Your task to perform on an android device: Play the last video I watched on Youtube Image 0: 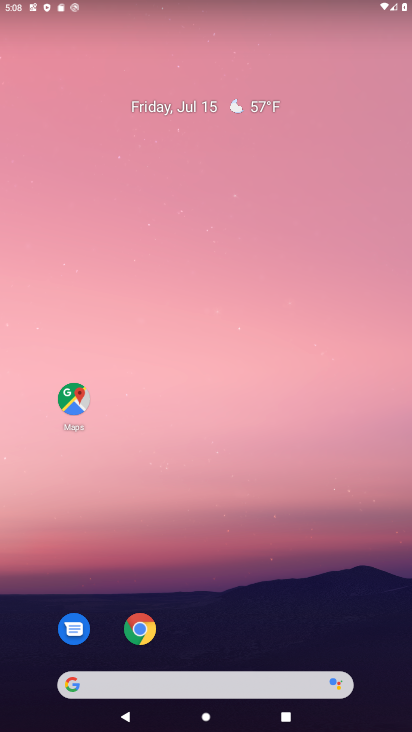
Step 0: press home button
Your task to perform on an android device: Play the last video I watched on Youtube Image 1: 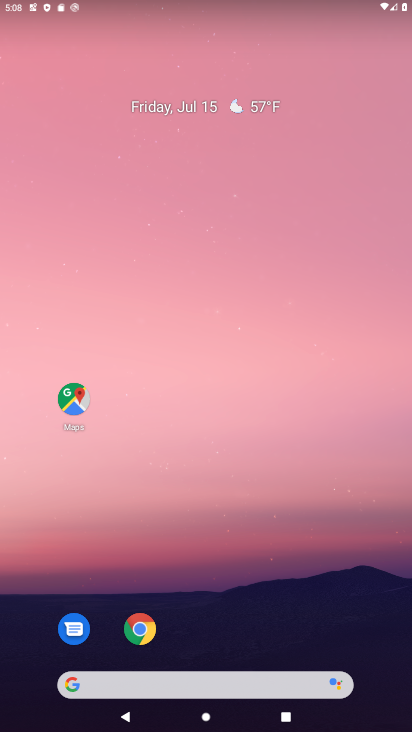
Step 1: drag from (249, 617) to (310, 182)
Your task to perform on an android device: Play the last video I watched on Youtube Image 2: 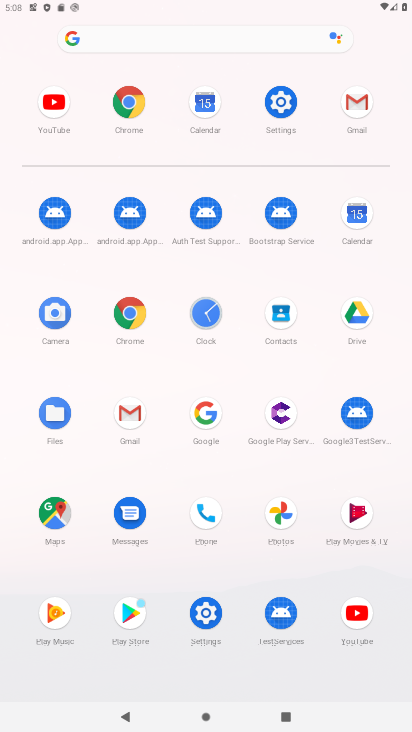
Step 2: click (347, 613)
Your task to perform on an android device: Play the last video I watched on Youtube Image 3: 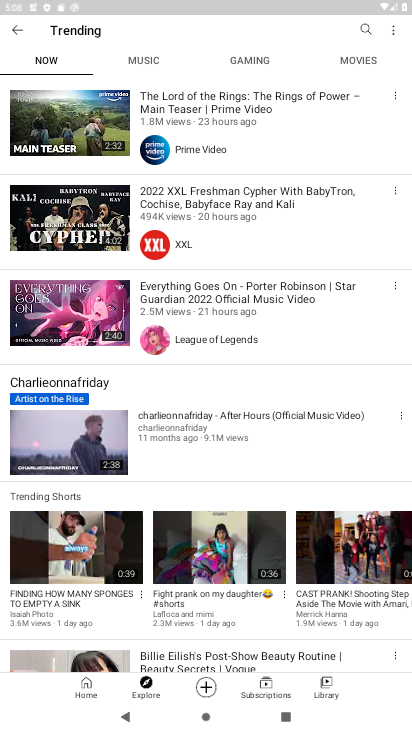
Step 3: click (321, 688)
Your task to perform on an android device: Play the last video I watched on Youtube Image 4: 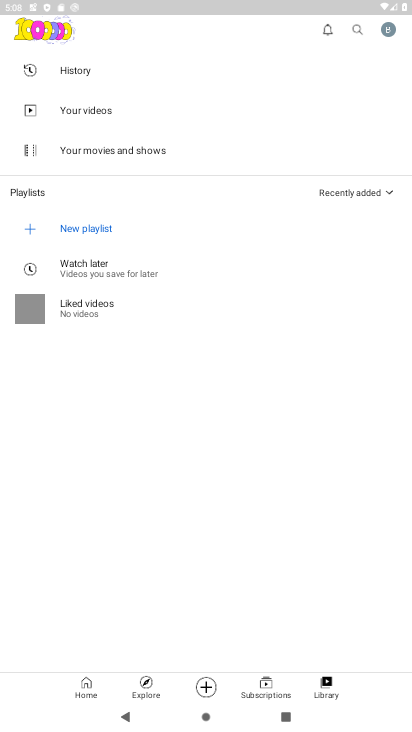
Step 4: click (76, 68)
Your task to perform on an android device: Play the last video I watched on Youtube Image 5: 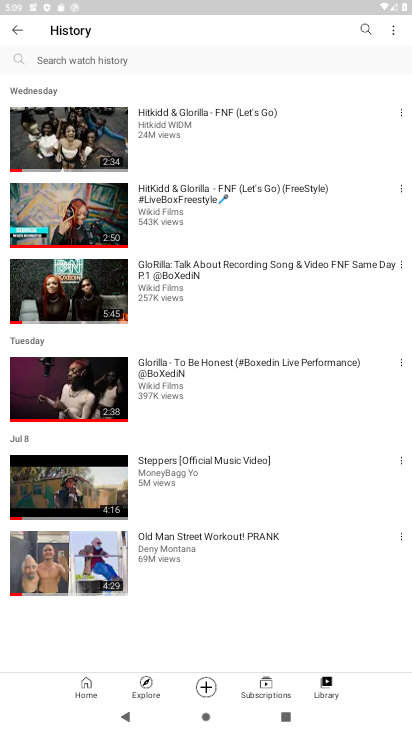
Step 5: click (76, 137)
Your task to perform on an android device: Play the last video I watched on Youtube Image 6: 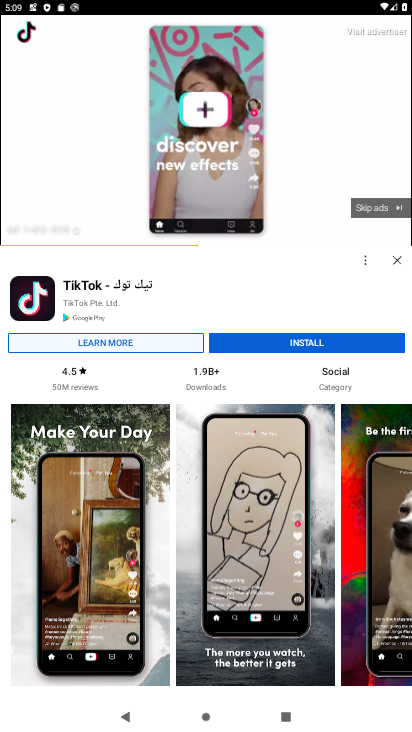
Step 6: click (364, 205)
Your task to perform on an android device: Play the last video I watched on Youtube Image 7: 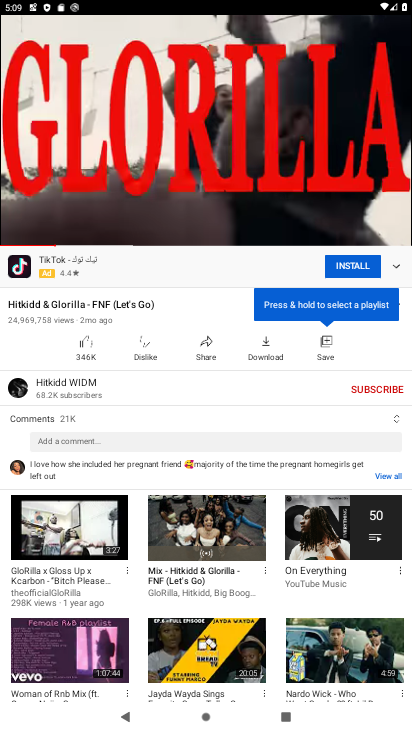
Step 7: task complete